Your task to perform on an android device: Search for macbook pro 15 inch on bestbuy, select the first entry, add it to the cart, then select checkout. Image 0: 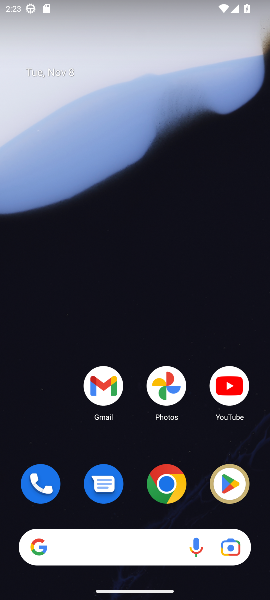
Step 0: click (159, 488)
Your task to perform on an android device: Search for macbook pro 15 inch on bestbuy, select the first entry, add it to the cart, then select checkout. Image 1: 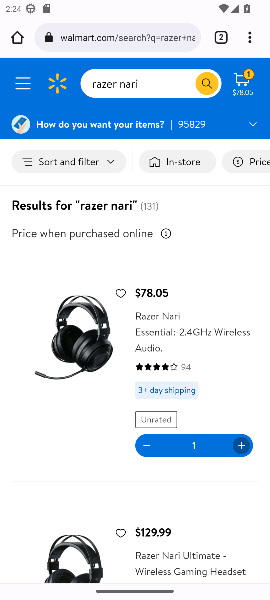
Step 1: click (85, 39)
Your task to perform on an android device: Search for macbook pro 15 inch on bestbuy, select the first entry, add it to the cart, then select checkout. Image 2: 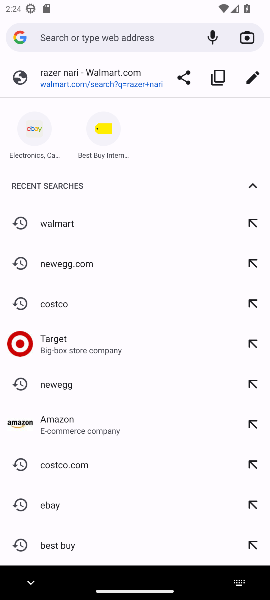
Step 2: click (98, 541)
Your task to perform on an android device: Search for macbook pro 15 inch on bestbuy, select the first entry, add it to the cart, then select checkout. Image 3: 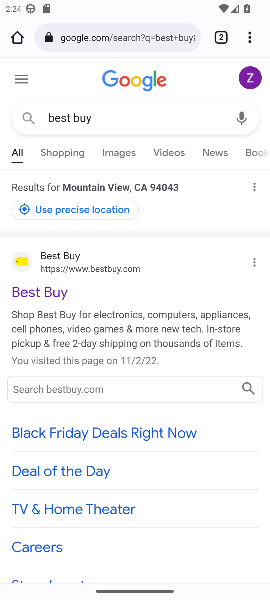
Step 3: click (29, 284)
Your task to perform on an android device: Search for macbook pro 15 inch on bestbuy, select the first entry, add it to the cart, then select checkout. Image 4: 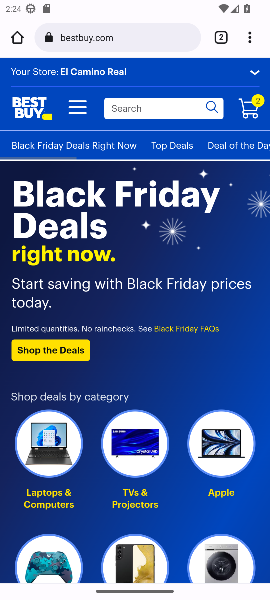
Step 4: click (146, 102)
Your task to perform on an android device: Search for macbook pro 15 inch on bestbuy, select the first entry, add it to the cart, then select checkout. Image 5: 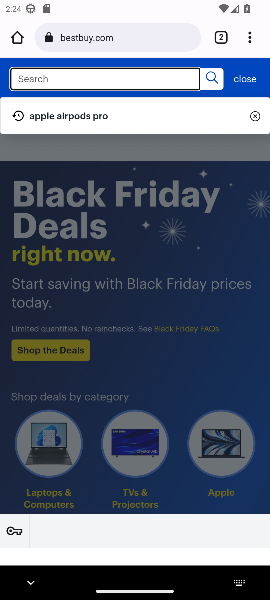
Step 5: type "mac book pro"
Your task to perform on an android device: Search for macbook pro 15 inch on bestbuy, select the first entry, add it to the cart, then select checkout. Image 6: 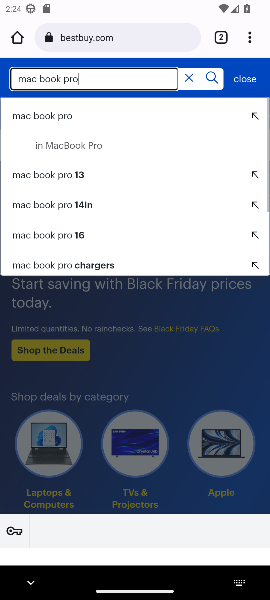
Step 6: click (24, 115)
Your task to perform on an android device: Search for macbook pro 15 inch on bestbuy, select the first entry, add it to the cart, then select checkout. Image 7: 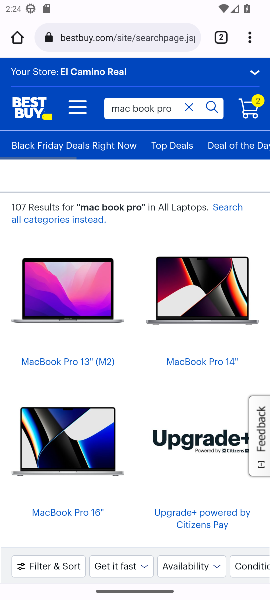
Step 7: click (73, 295)
Your task to perform on an android device: Search for macbook pro 15 inch on bestbuy, select the first entry, add it to the cart, then select checkout. Image 8: 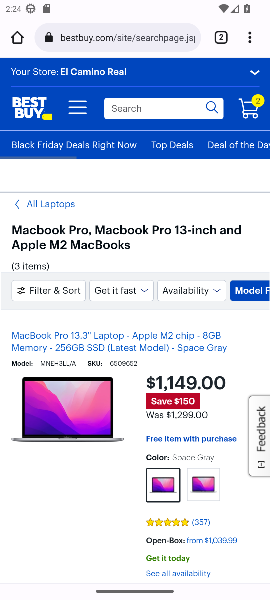
Step 8: drag from (160, 317) to (158, 153)
Your task to perform on an android device: Search for macbook pro 15 inch on bestbuy, select the first entry, add it to the cart, then select checkout. Image 9: 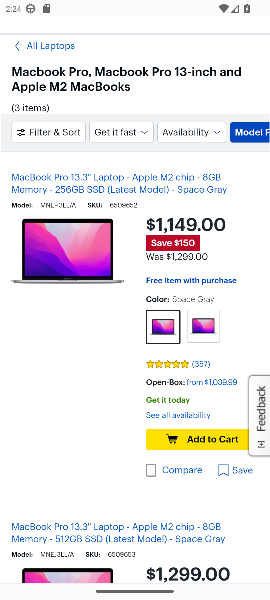
Step 9: click (171, 432)
Your task to perform on an android device: Search for macbook pro 15 inch on bestbuy, select the first entry, add it to the cart, then select checkout. Image 10: 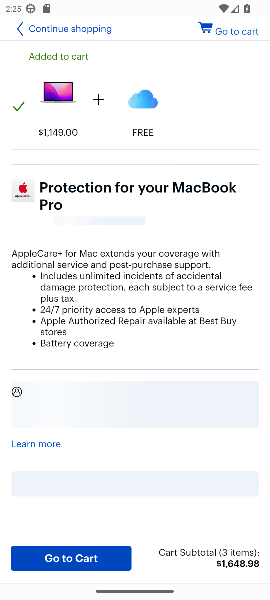
Step 10: click (82, 557)
Your task to perform on an android device: Search for macbook pro 15 inch on bestbuy, select the first entry, add it to the cart, then select checkout. Image 11: 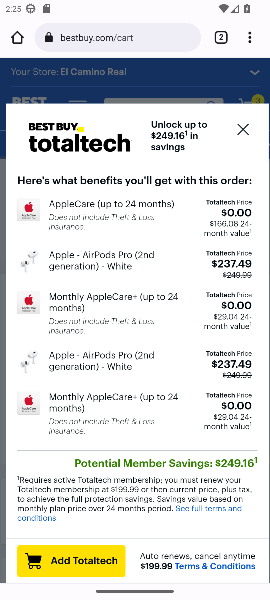
Step 11: click (241, 132)
Your task to perform on an android device: Search for macbook pro 15 inch on bestbuy, select the first entry, add it to the cart, then select checkout. Image 12: 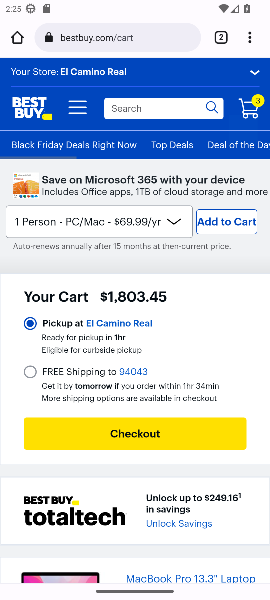
Step 12: click (104, 439)
Your task to perform on an android device: Search for macbook pro 15 inch on bestbuy, select the first entry, add it to the cart, then select checkout. Image 13: 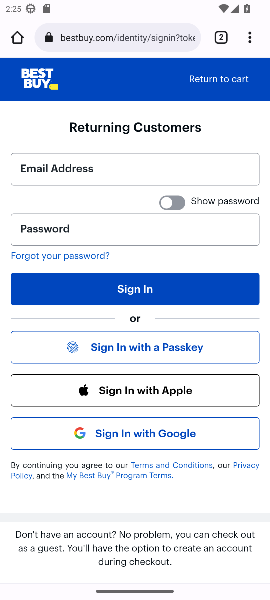
Step 13: task complete